Your task to perform on an android device: Clear all items from cart on walmart. Search for usb-c to usb-b on walmart, select the first entry, add it to the cart, then select checkout. Image 0: 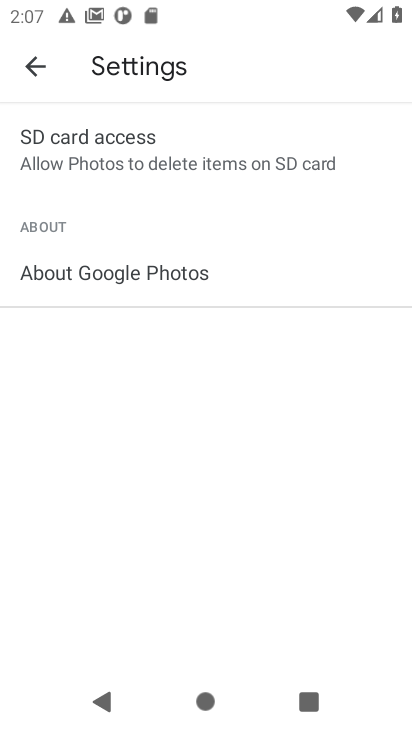
Step 0: press home button
Your task to perform on an android device: Clear all items from cart on walmart. Search for usb-c to usb-b on walmart, select the first entry, add it to the cart, then select checkout. Image 1: 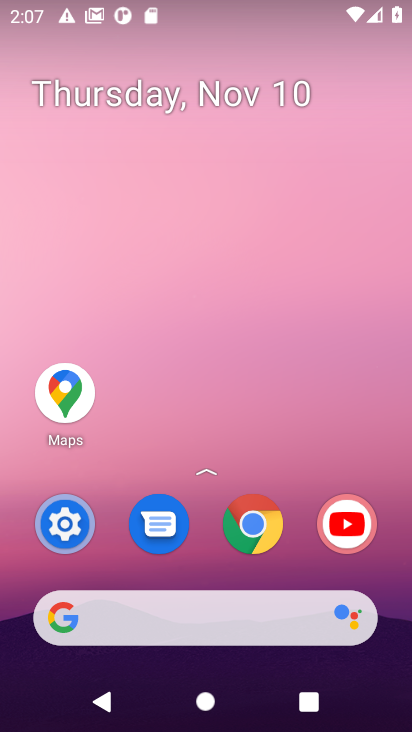
Step 1: click (261, 532)
Your task to perform on an android device: Clear all items from cart on walmart. Search for usb-c to usb-b on walmart, select the first entry, add it to the cart, then select checkout. Image 2: 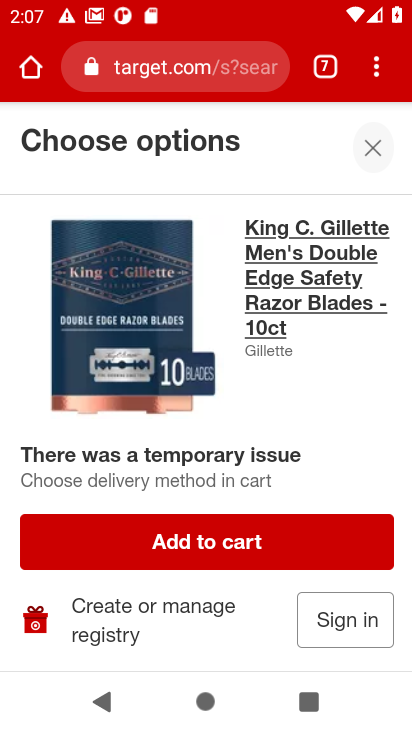
Step 2: click (325, 68)
Your task to perform on an android device: Clear all items from cart on walmart. Search for usb-c to usb-b on walmart, select the first entry, add it to the cart, then select checkout. Image 3: 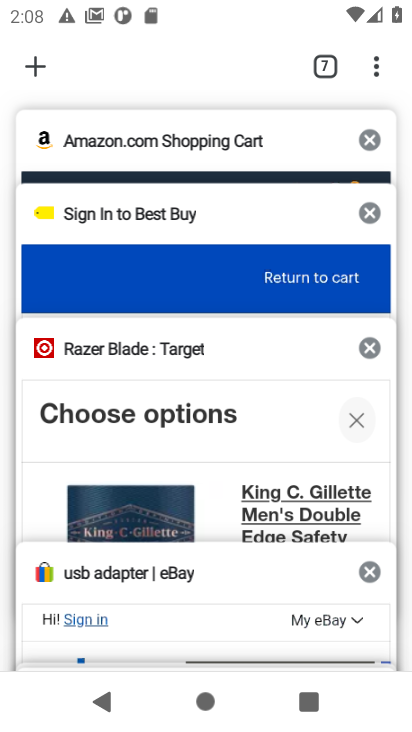
Step 3: drag from (85, 662) to (117, 467)
Your task to perform on an android device: Clear all items from cart on walmart. Search for usb-c to usb-b on walmart, select the first entry, add it to the cart, then select checkout. Image 4: 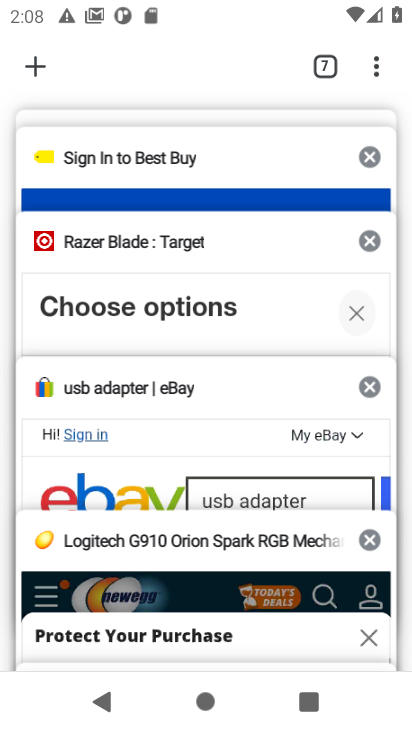
Step 4: drag from (140, 662) to (214, 410)
Your task to perform on an android device: Clear all items from cart on walmart. Search for usb-c to usb-b on walmart, select the first entry, add it to the cart, then select checkout. Image 5: 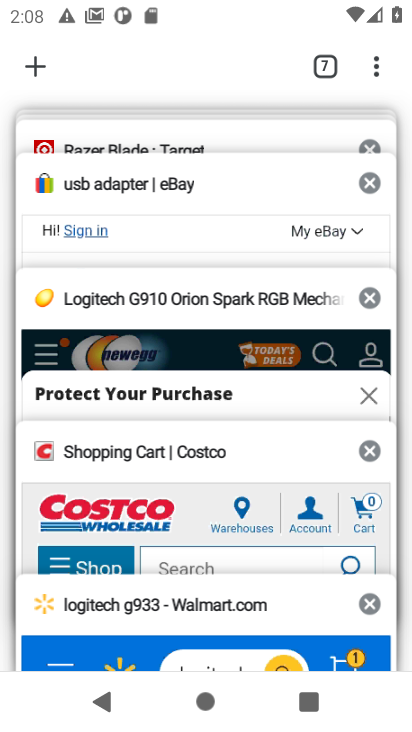
Step 5: click (142, 644)
Your task to perform on an android device: Clear all items from cart on walmart. Search for usb-c to usb-b on walmart, select the first entry, add it to the cart, then select checkout. Image 6: 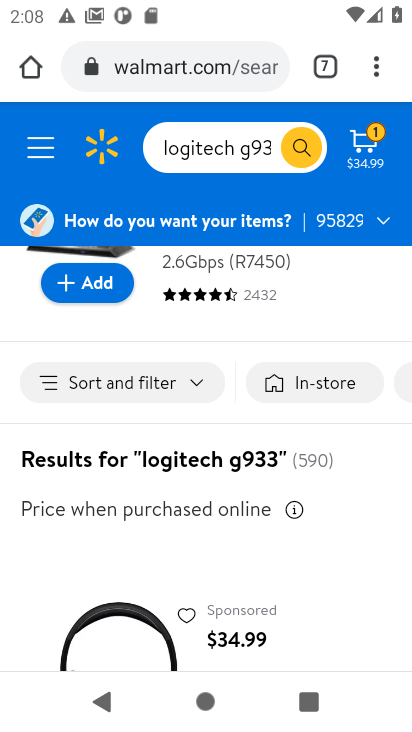
Step 6: click (215, 148)
Your task to perform on an android device: Clear all items from cart on walmart. Search for usb-c to usb-b on walmart, select the first entry, add it to the cart, then select checkout. Image 7: 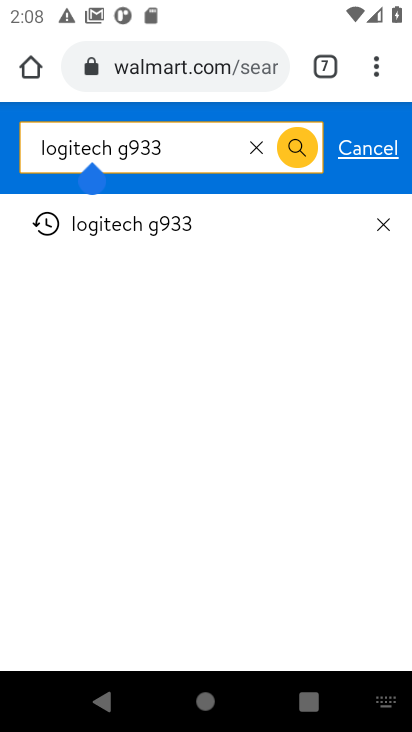
Step 7: click (264, 149)
Your task to perform on an android device: Clear all items from cart on walmart. Search for usb-c to usb-b on walmart, select the first entry, add it to the cart, then select checkout. Image 8: 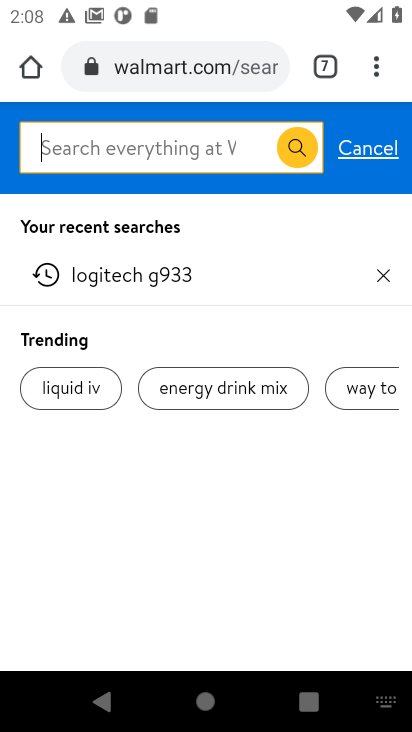
Step 8: type "usb-c to usb-b "
Your task to perform on an android device: Clear all items from cart on walmart. Search for usb-c to usb-b on walmart, select the first entry, add it to the cart, then select checkout. Image 9: 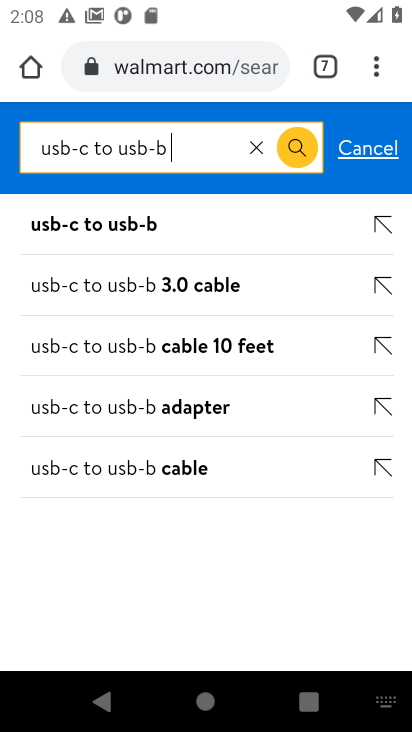
Step 9: click (135, 227)
Your task to perform on an android device: Clear all items from cart on walmart. Search for usb-c to usb-b on walmart, select the first entry, add it to the cart, then select checkout. Image 10: 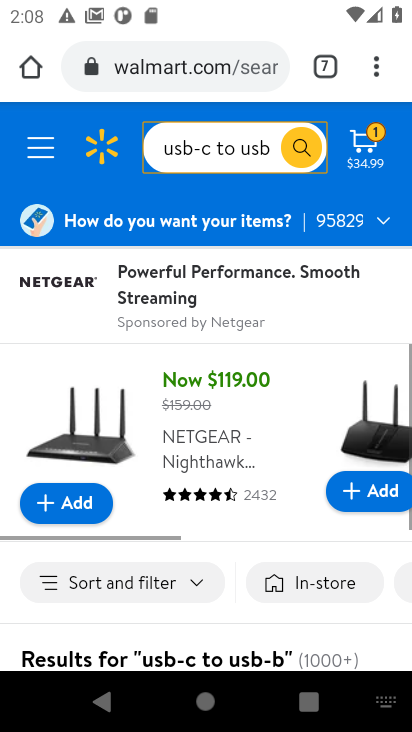
Step 10: drag from (213, 534) to (245, 286)
Your task to perform on an android device: Clear all items from cart on walmart. Search for usb-c to usb-b on walmart, select the first entry, add it to the cart, then select checkout. Image 11: 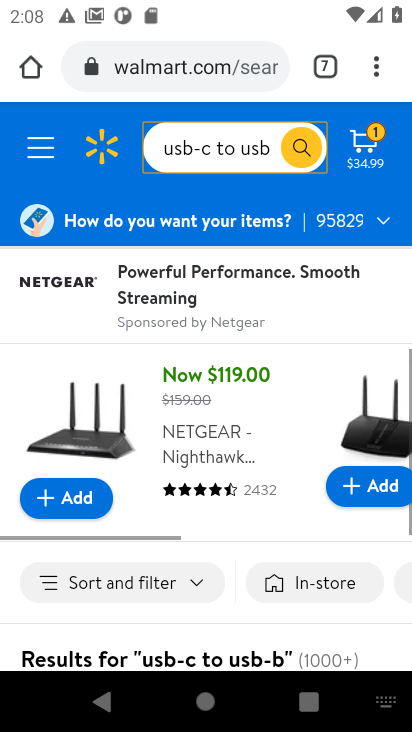
Step 11: drag from (230, 558) to (280, 259)
Your task to perform on an android device: Clear all items from cart on walmart. Search for usb-c to usb-b on walmart, select the first entry, add it to the cart, then select checkout. Image 12: 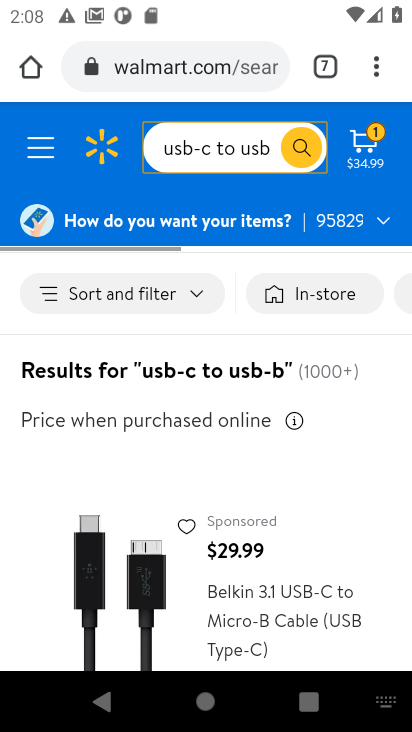
Step 12: drag from (332, 538) to (348, 297)
Your task to perform on an android device: Clear all items from cart on walmart. Search for usb-c to usb-b on walmart, select the first entry, add it to the cart, then select checkout. Image 13: 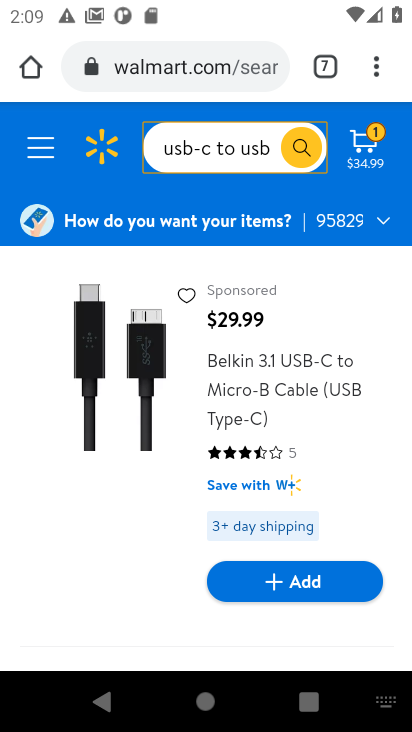
Step 13: click (301, 581)
Your task to perform on an android device: Clear all items from cart on walmart. Search for usb-c to usb-b on walmart, select the first entry, add it to the cart, then select checkout. Image 14: 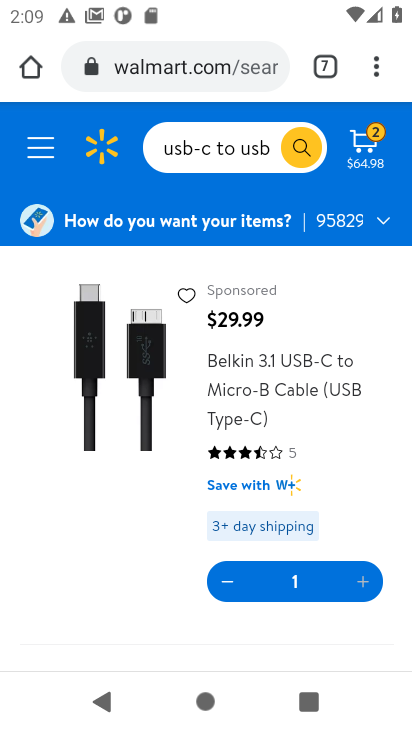
Step 14: click (375, 134)
Your task to perform on an android device: Clear all items from cart on walmart. Search for usb-c to usb-b on walmart, select the first entry, add it to the cart, then select checkout. Image 15: 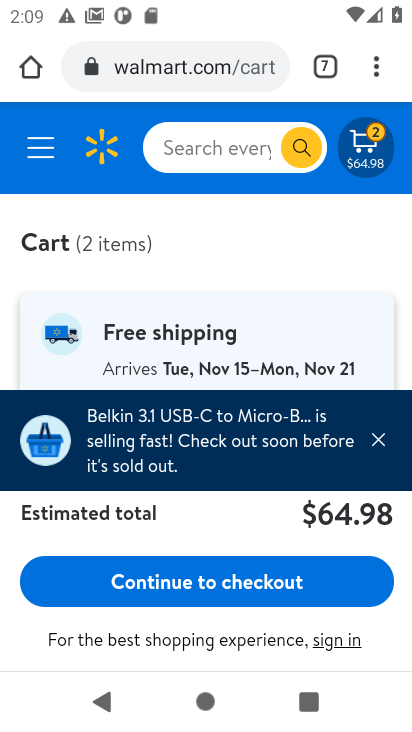
Step 15: click (380, 436)
Your task to perform on an android device: Clear all items from cart on walmart. Search for usb-c to usb-b on walmart, select the first entry, add it to the cart, then select checkout. Image 16: 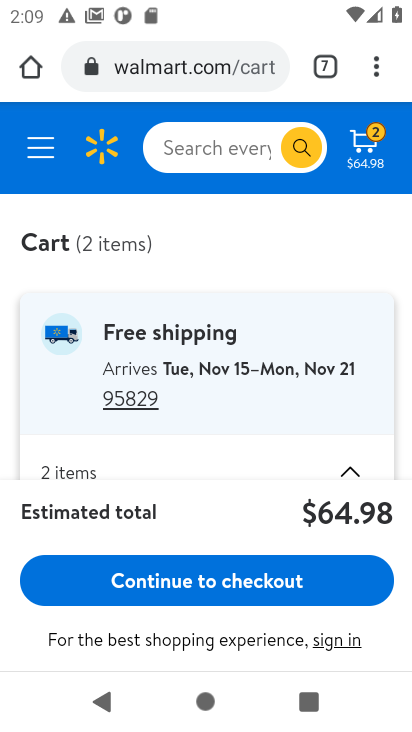
Step 16: drag from (298, 459) to (272, 228)
Your task to perform on an android device: Clear all items from cart on walmart. Search for usb-c to usb-b on walmart, select the first entry, add it to the cart, then select checkout. Image 17: 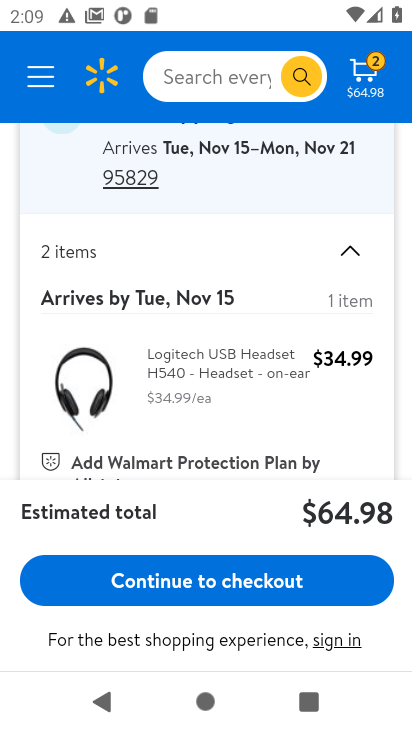
Step 17: drag from (254, 424) to (253, 291)
Your task to perform on an android device: Clear all items from cart on walmart. Search for usb-c to usb-b on walmart, select the first entry, add it to the cart, then select checkout. Image 18: 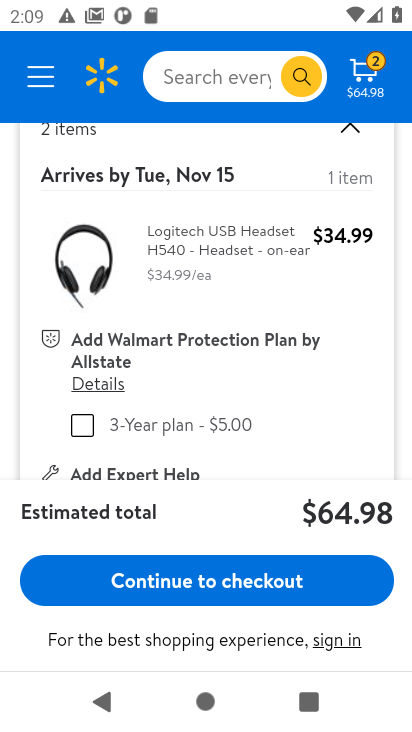
Step 18: drag from (280, 411) to (276, 286)
Your task to perform on an android device: Clear all items from cart on walmart. Search for usb-c to usb-b on walmart, select the first entry, add it to the cart, then select checkout. Image 19: 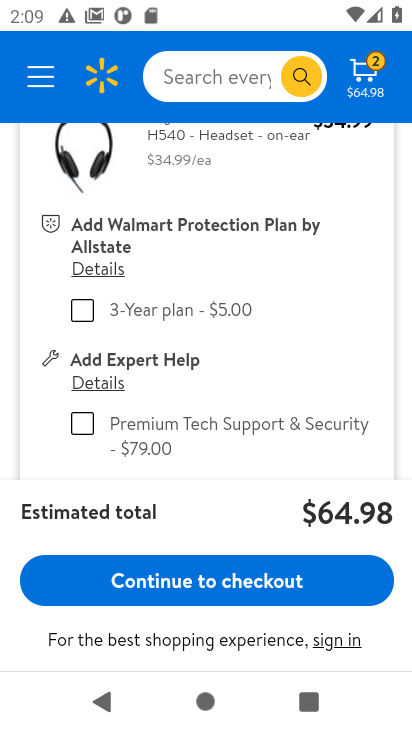
Step 19: drag from (159, 396) to (184, 163)
Your task to perform on an android device: Clear all items from cart on walmart. Search for usb-c to usb-b on walmart, select the first entry, add it to the cart, then select checkout. Image 20: 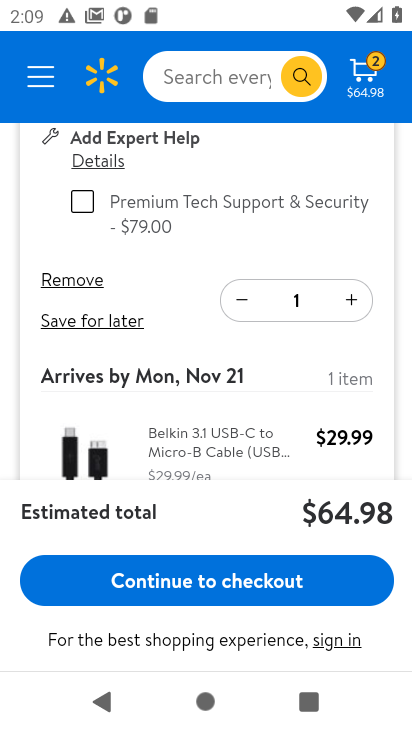
Step 20: click (82, 280)
Your task to perform on an android device: Clear all items from cart on walmart. Search for usb-c to usb-b on walmart, select the first entry, add it to the cart, then select checkout. Image 21: 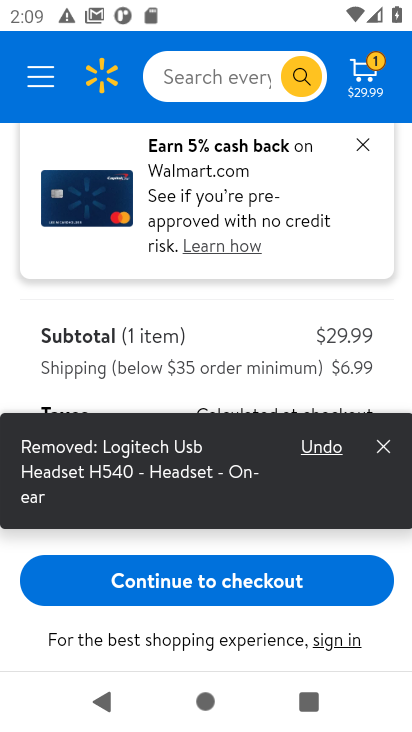
Step 21: click (178, 578)
Your task to perform on an android device: Clear all items from cart on walmart. Search for usb-c to usb-b on walmart, select the first entry, add it to the cart, then select checkout. Image 22: 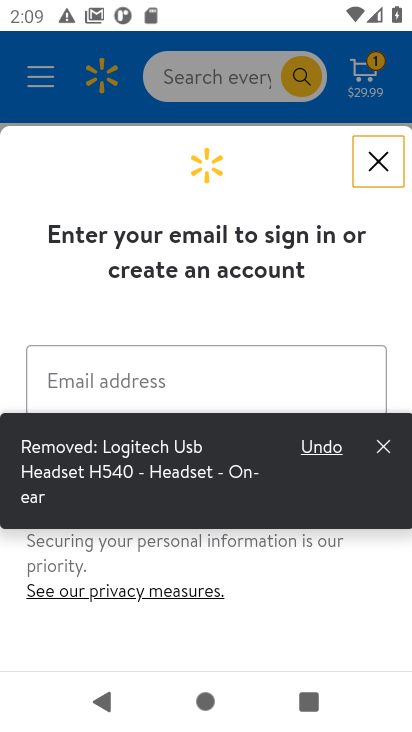
Step 22: click (378, 168)
Your task to perform on an android device: Clear all items from cart on walmart. Search for usb-c to usb-b on walmart, select the first entry, add it to the cart, then select checkout. Image 23: 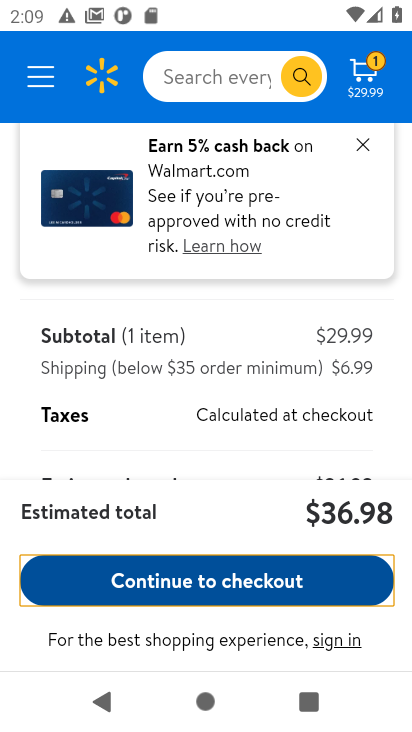
Step 23: task complete